Your task to perform on an android device: What's the weather today? Image 0: 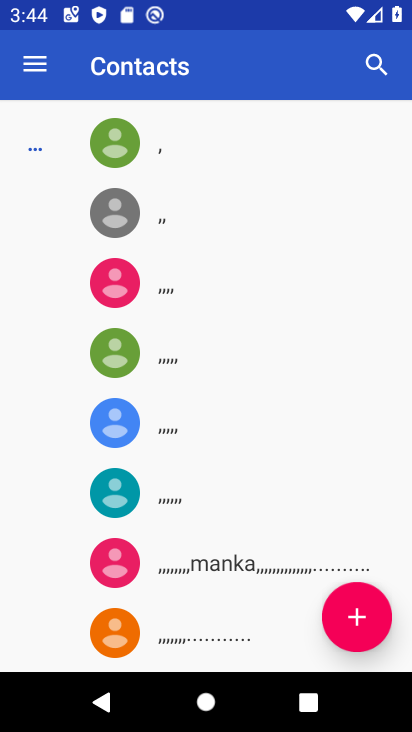
Step 0: press home button
Your task to perform on an android device: What's the weather today? Image 1: 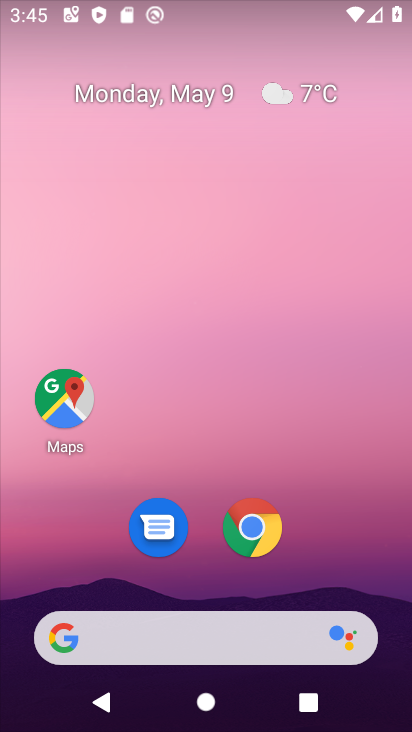
Step 1: click (327, 97)
Your task to perform on an android device: What's the weather today? Image 2: 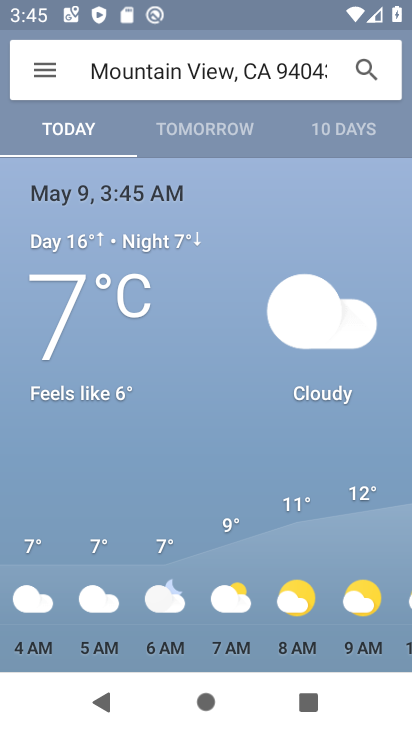
Step 2: task complete